Your task to perform on an android device: change text size in settings app Image 0: 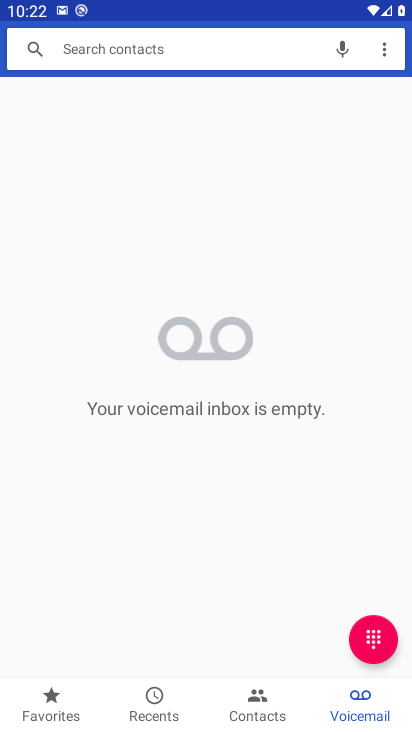
Step 0: press home button
Your task to perform on an android device: change text size in settings app Image 1: 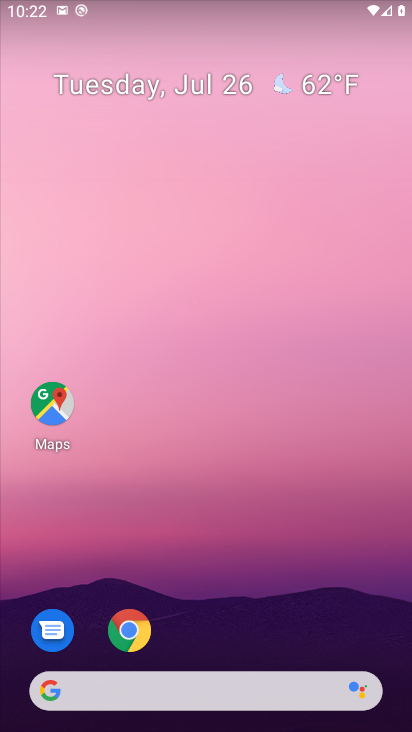
Step 1: drag from (204, 637) to (226, 76)
Your task to perform on an android device: change text size in settings app Image 2: 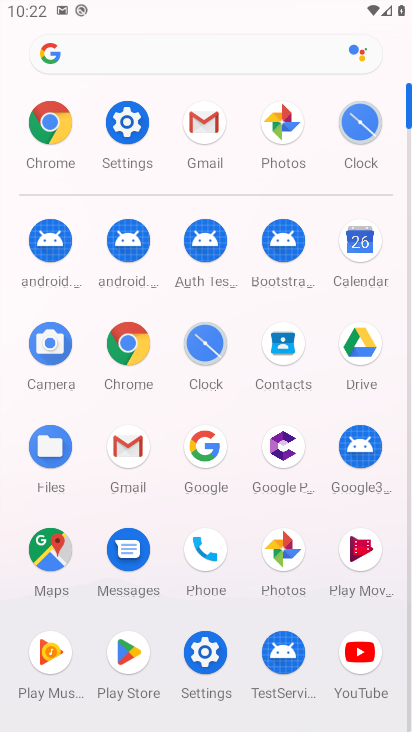
Step 2: click (130, 125)
Your task to perform on an android device: change text size in settings app Image 3: 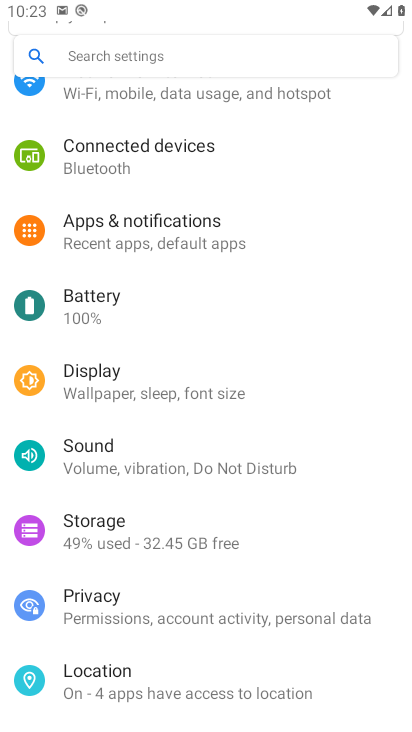
Step 3: click (94, 381)
Your task to perform on an android device: change text size in settings app Image 4: 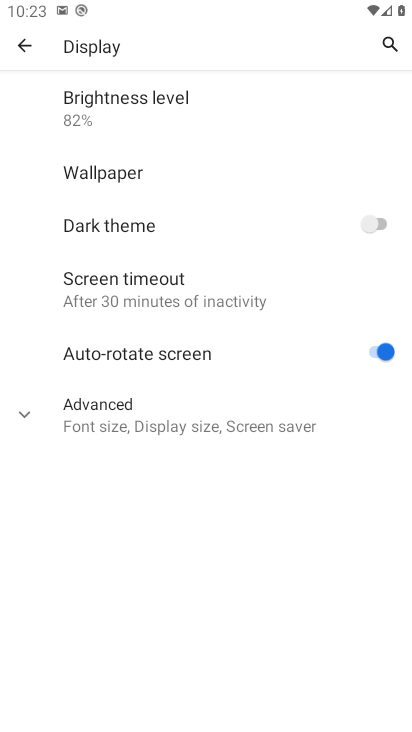
Step 4: click (44, 414)
Your task to perform on an android device: change text size in settings app Image 5: 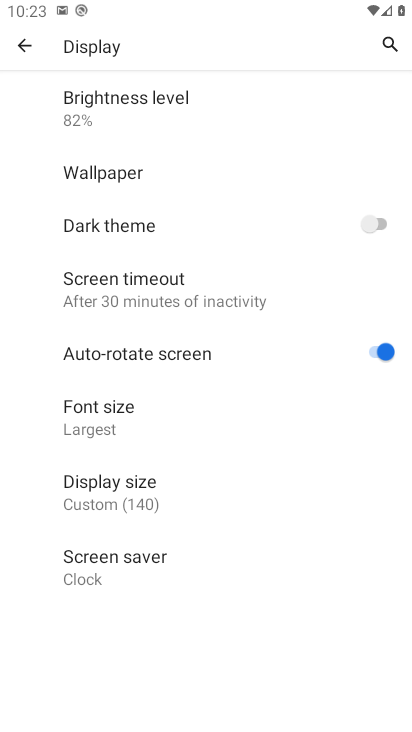
Step 5: click (139, 422)
Your task to perform on an android device: change text size in settings app Image 6: 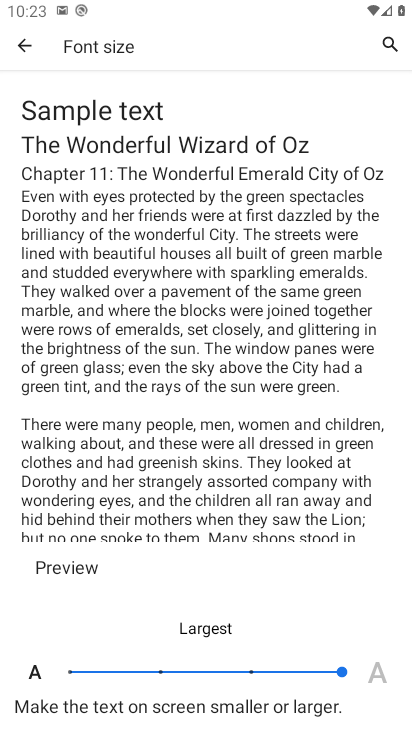
Step 6: click (262, 672)
Your task to perform on an android device: change text size in settings app Image 7: 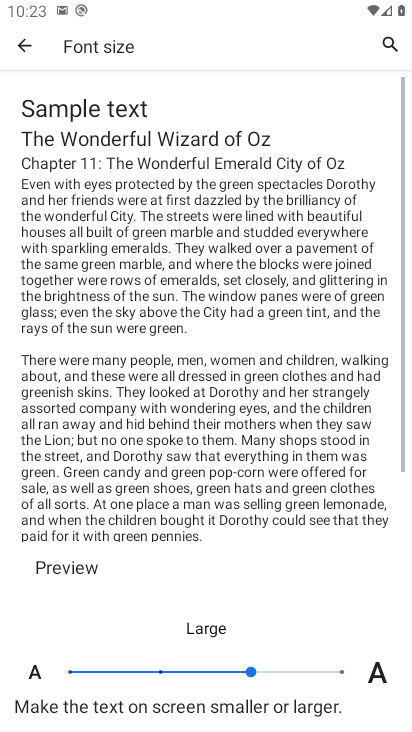
Step 7: task complete